Your task to perform on an android device: Go to battery settings Image 0: 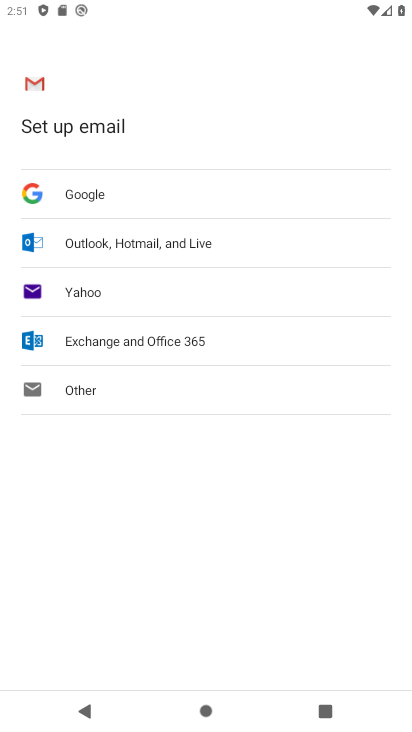
Step 0: drag from (298, 567) to (311, 193)
Your task to perform on an android device: Go to battery settings Image 1: 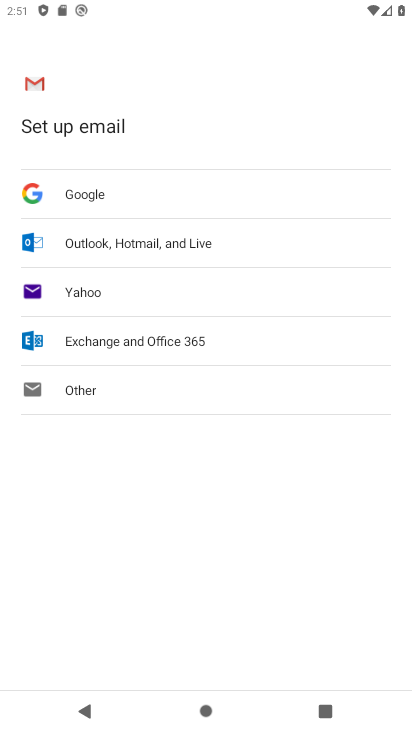
Step 1: press home button
Your task to perform on an android device: Go to battery settings Image 2: 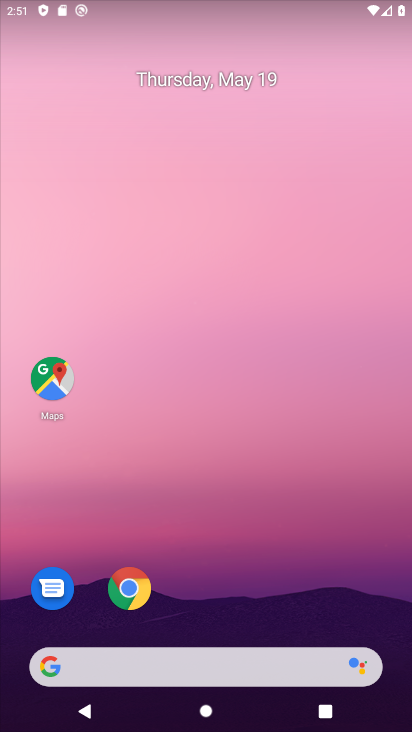
Step 2: drag from (331, 570) to (324, 98)
Your task to perform on an android device: Go to battery settings Image 3: 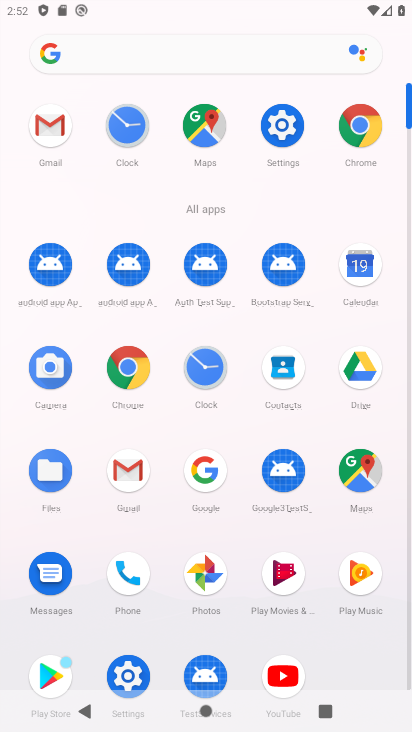
Step 3: click (284, 138)
Your task to perform on an android device: Go to battery settings Image 4: 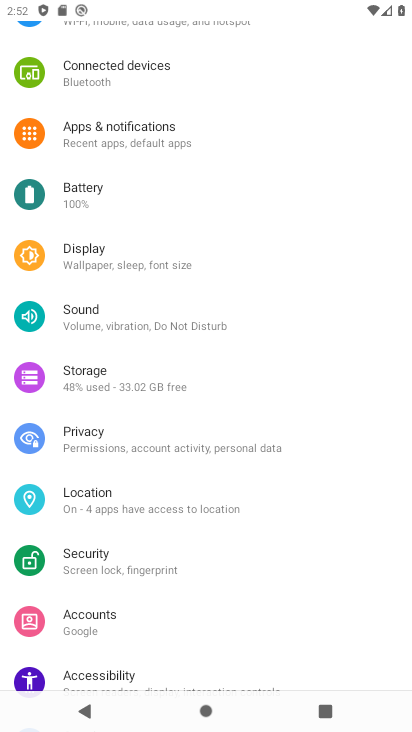
Step 4: click (156, 196)
Your task to perform on an android device: Go to battery settings Image 5: 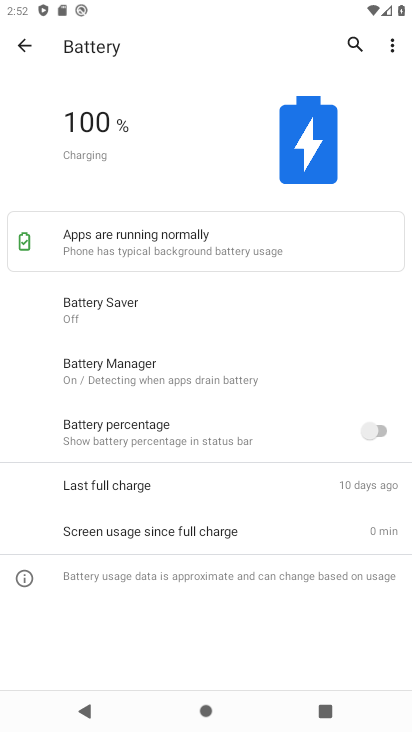
Step 5: task complete